Your task to perform on an android device: turn pop-ups off in chrome Image 0: 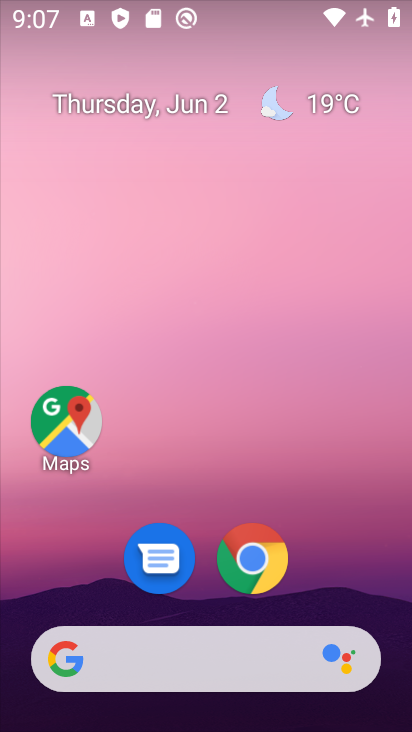
Step 0: click (255, 560)
Your task to perform on an android device: turn pop-ups off in chrome Image 1: 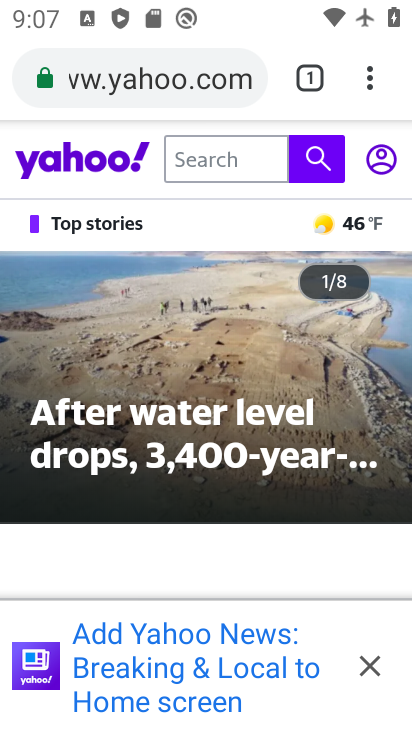
Step 1: click (368, 84)
Your task to perform on an android device: turn pop-ups off in chrome Image 2: 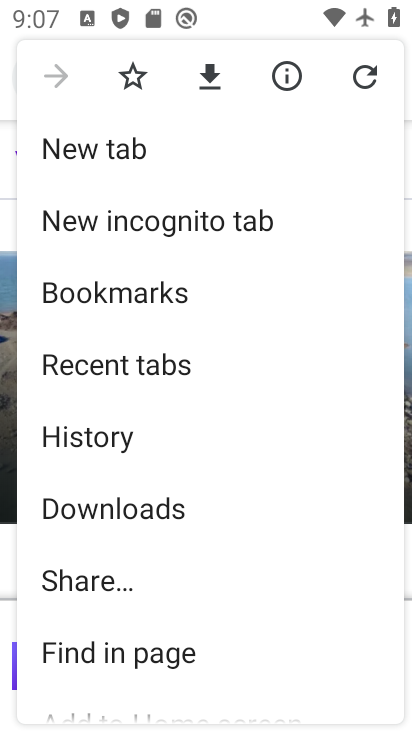
Step 2: drag from (246, 570) to (284, 208)
Your task to perform on an android device: turn pop-ups off in chrome Image 3: 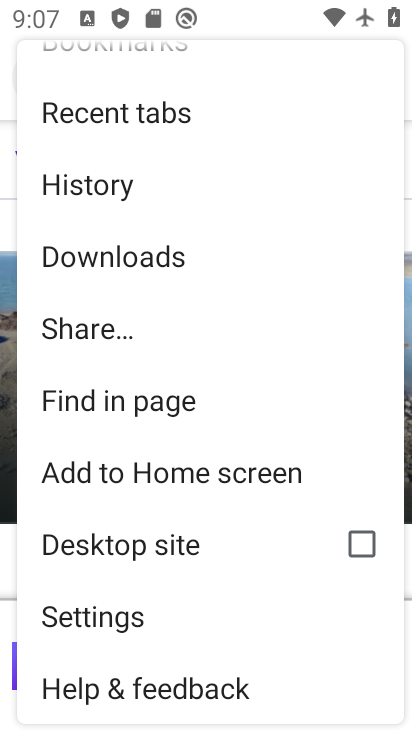
Step 3: click (134, 615)
Your task to perform on an android device: turn pop-ups off in chrome Image 4: 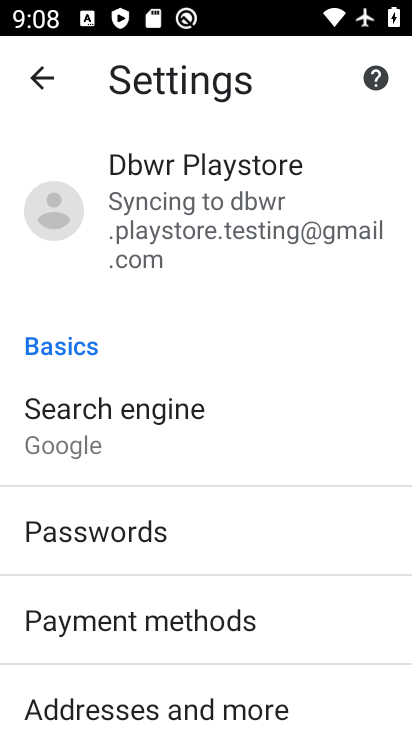
Step 4: drag from (279, 679) to (223, 126)
Your task to perform on an android device: turn pop-ups off in chrome Image 5: 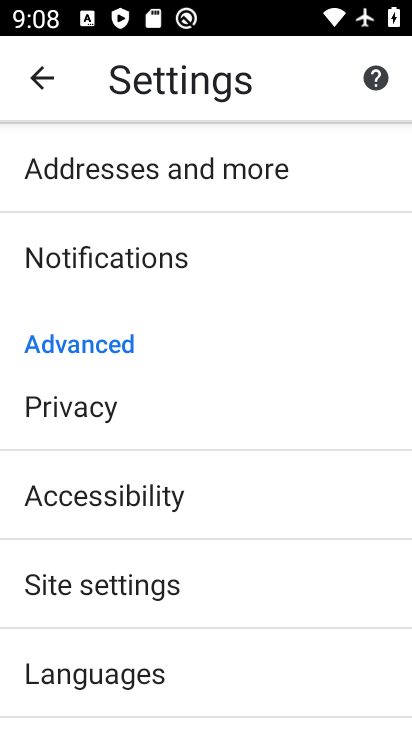
Step 5: drag from (233, 646) to (243, 169)
Your task to perform on an android device: turn pop-ups off in chrome Image 6: 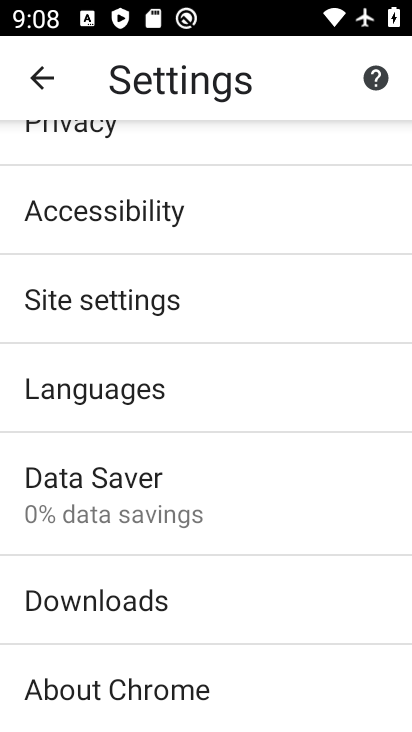
Step 6: click (83, 298)
Your task to perform on an android device: turn pop-ups off in chrome Image 7: 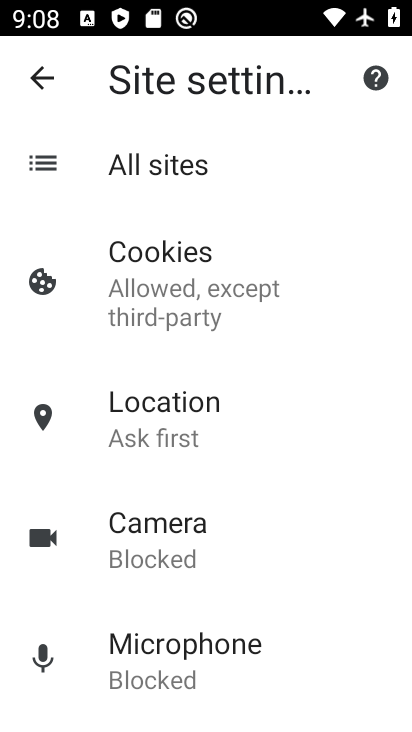
Step 7: drag from (262, 618) to (251, 108)
Your task to perform on an android device: turn pop-ups off in chrome Image 8: 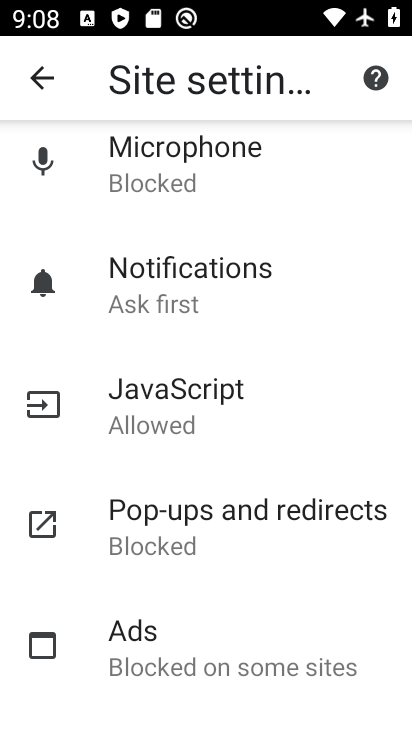
Step 8: click (188, 495)
Your task to perform on an android device: turn pop-ups off in chrome Image 9: 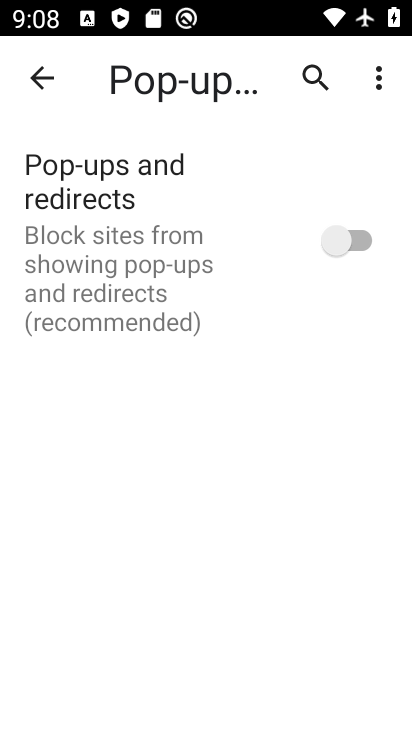
Step 9: task complete